Your task to perform on an android device: change alarm snooze length Image 0: 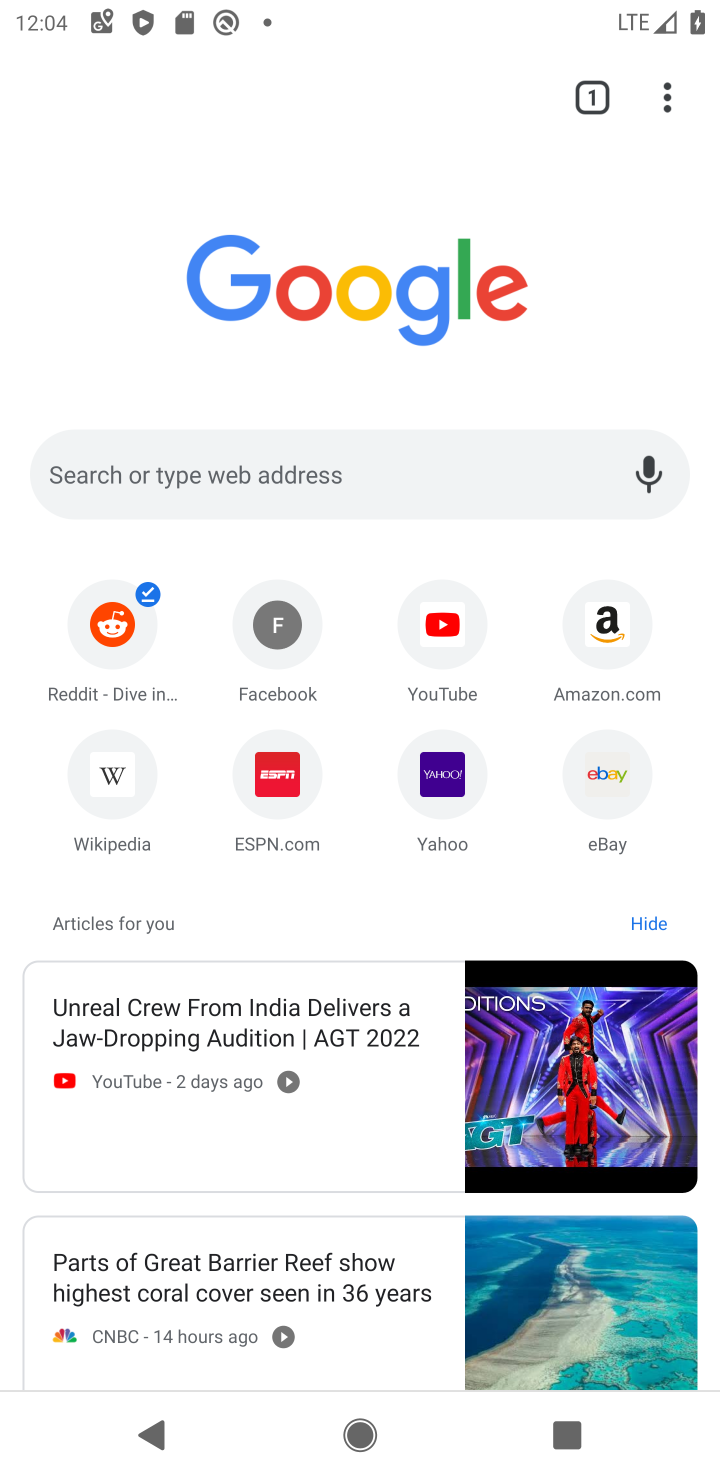
Step 0: press home button
Your task to perform on an android device: change alarm snooze length Image 1: 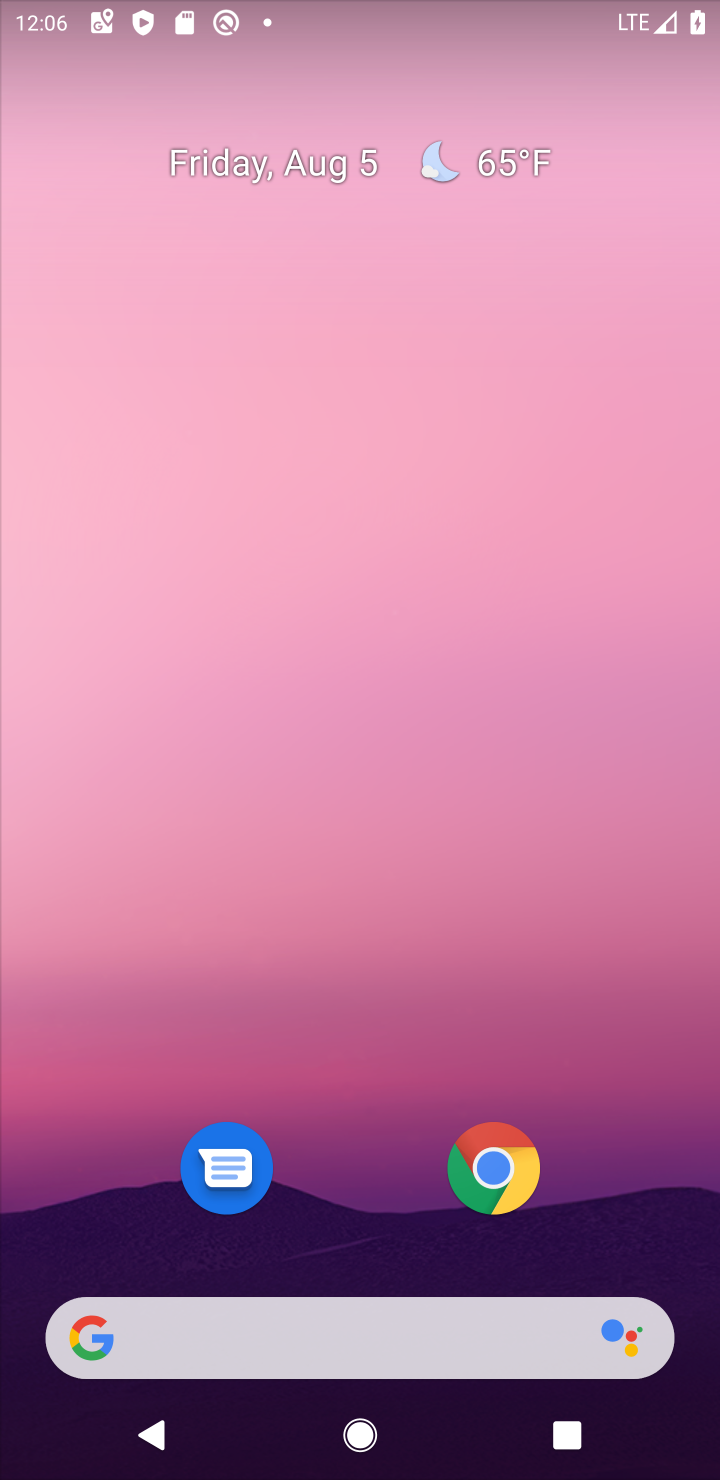
Step 1: drag from (703, 1233) to (448, 95)
Your task to perform on an android device: change alarm snooze length Image 2: 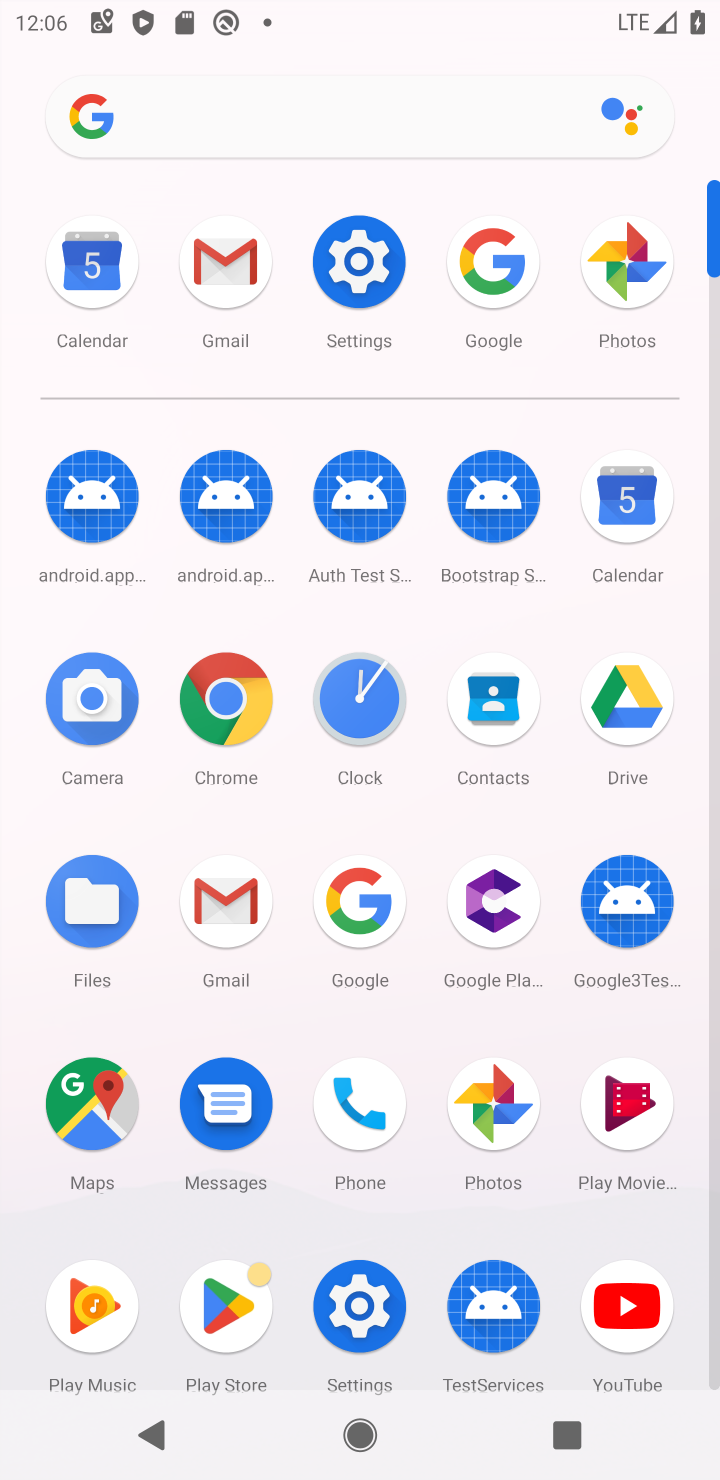
Step 2: click (365, 697)
Your task to perform on an android device: change alarm snooze length Image 3: 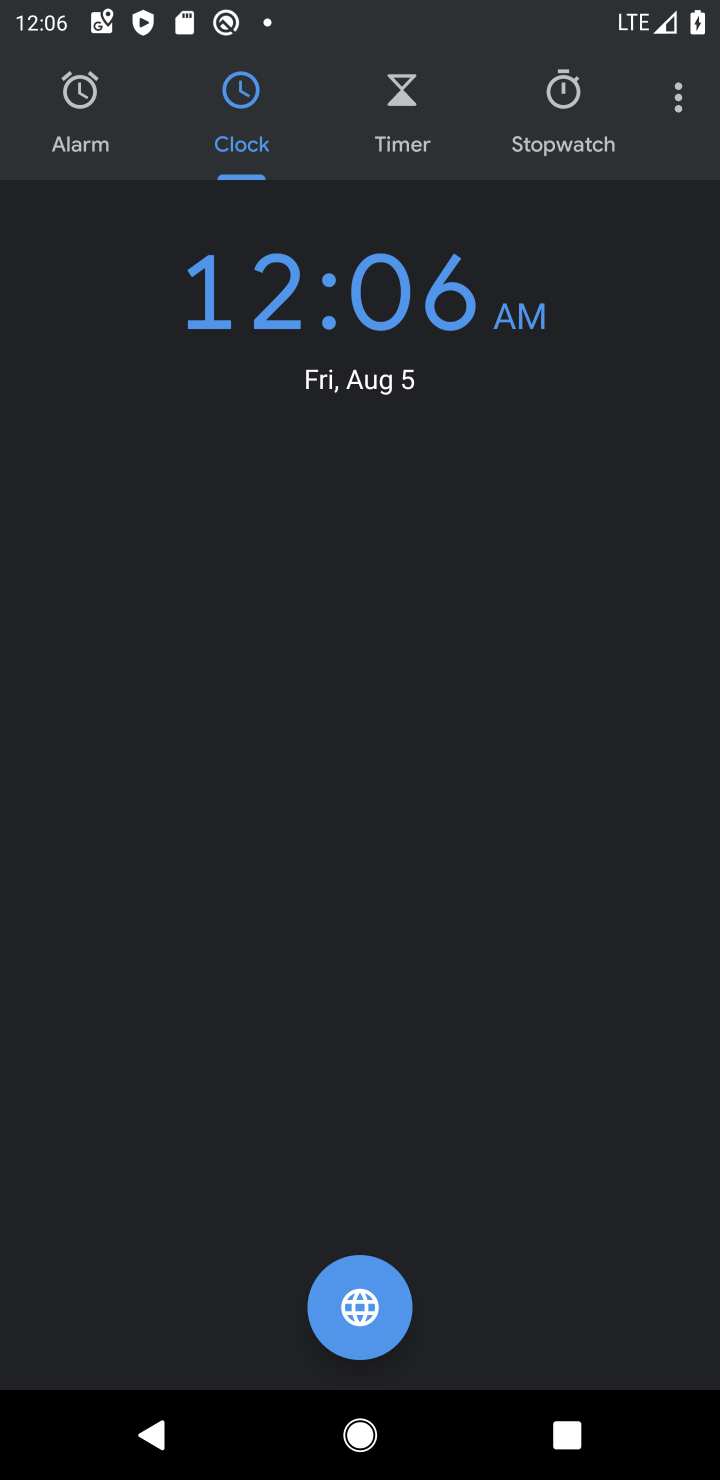
Step 3: click (683, 100)
Your task to perform on an android device: change alarm snooze length Image 4: 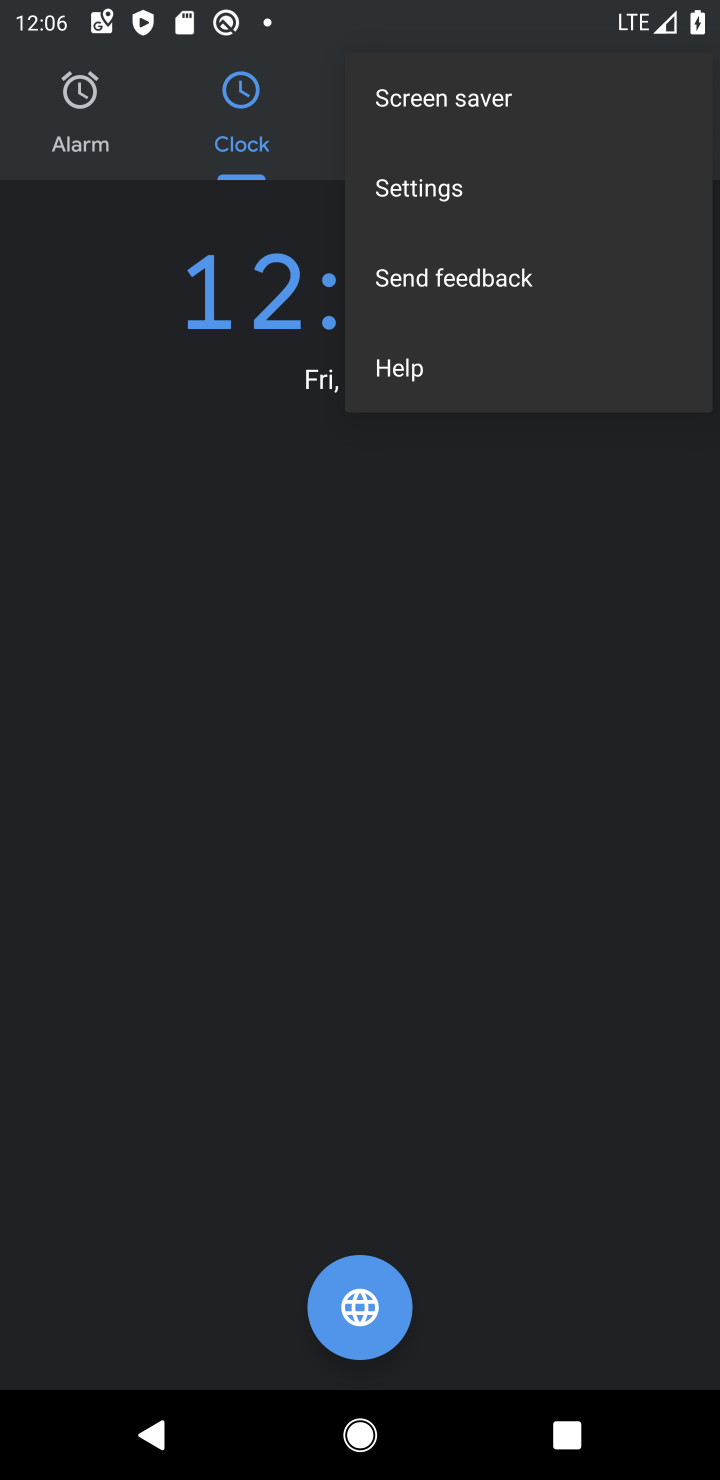
Step 4: click (515, 191)
Your task to perform on an android device: change alarm snooze length Image 5: 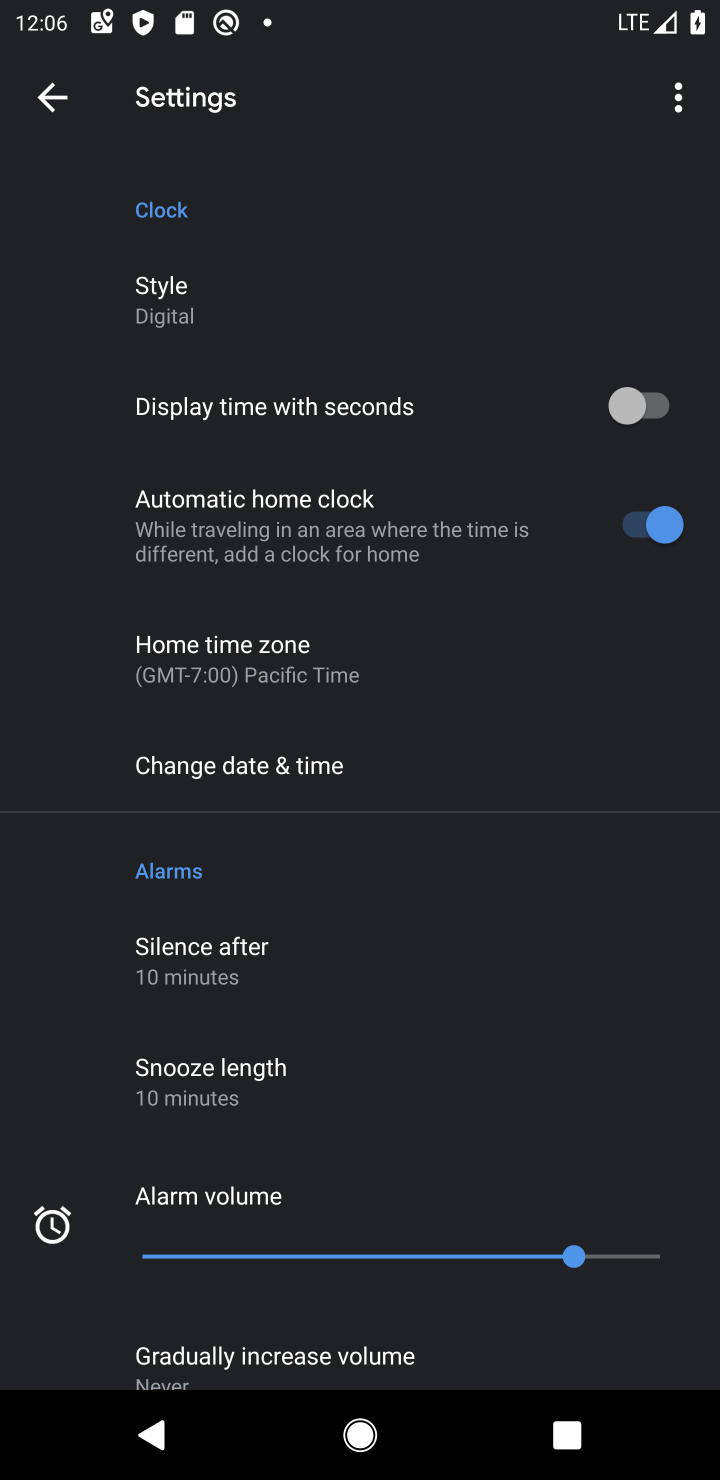
Step 5: click (329, 1088)
Your task to perform on an android device: change alarm snooze length Image 6: 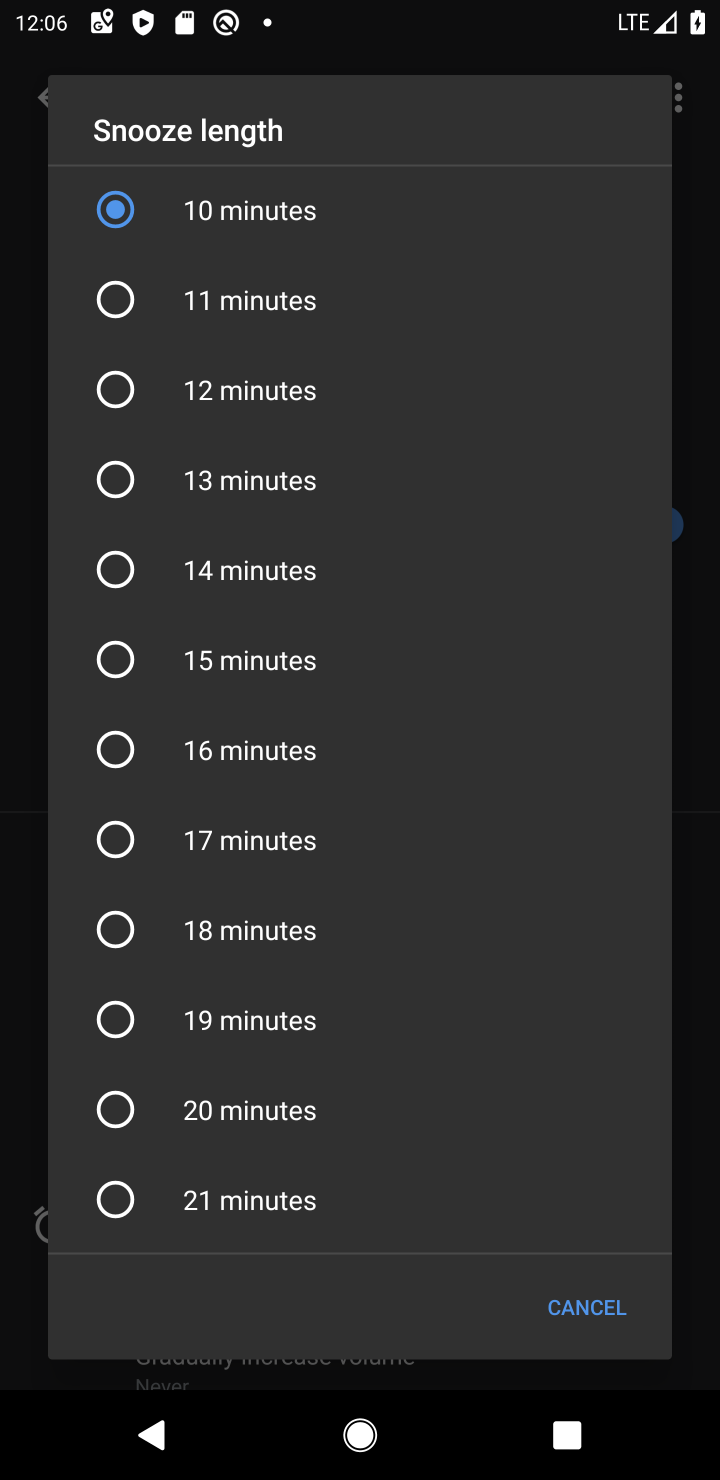
Step 6: click (101, 1109)
Your task to perform on an android device: change alarm snooze length Image 7: 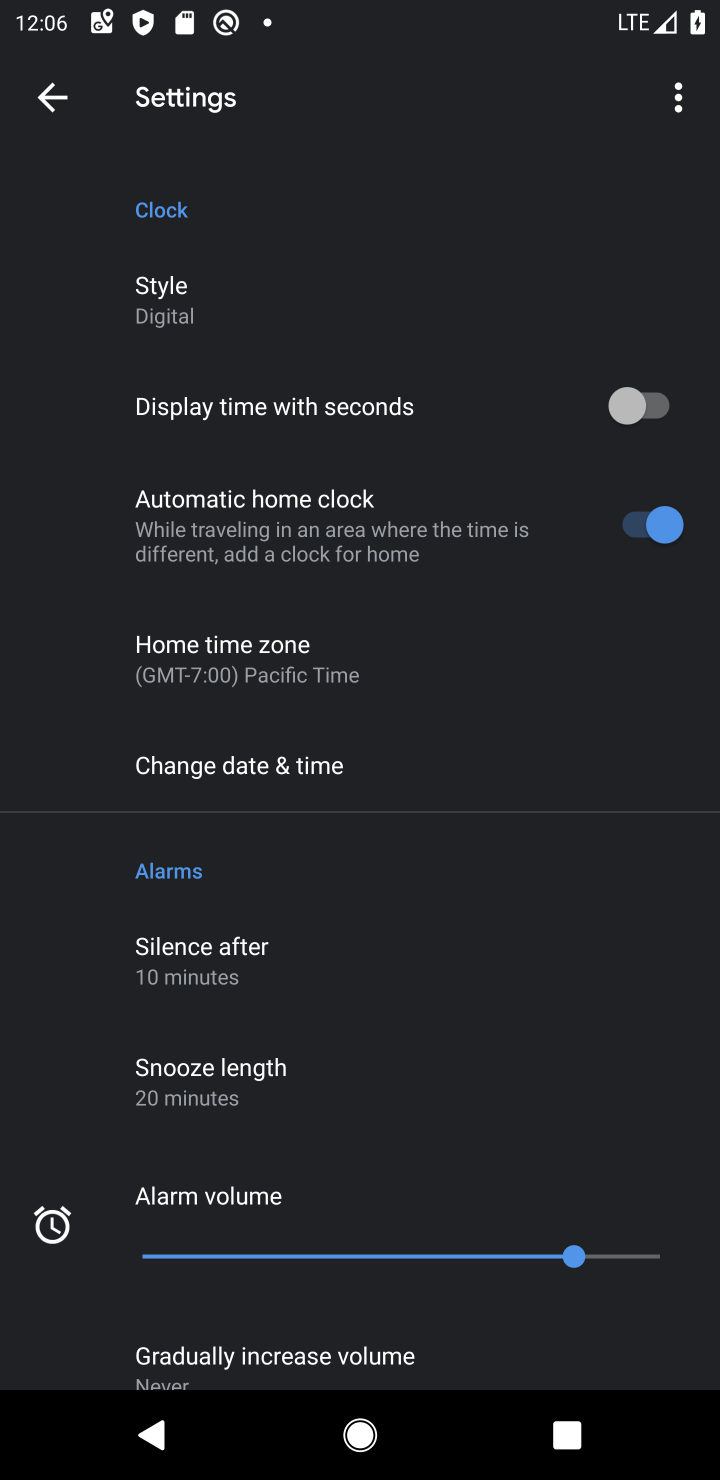
Step 7: task complete